Your task to perform on an android device: snooze an email in the gmail app Image 0: 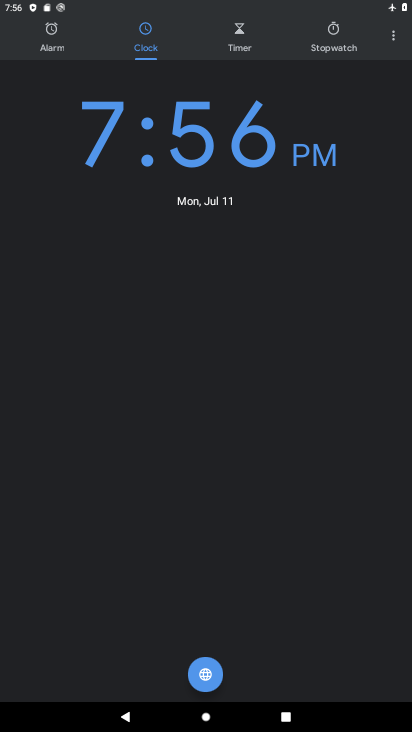
Step 0: press home button
Your task to perform on an android device: snooze an email in the gmail app Image 1: 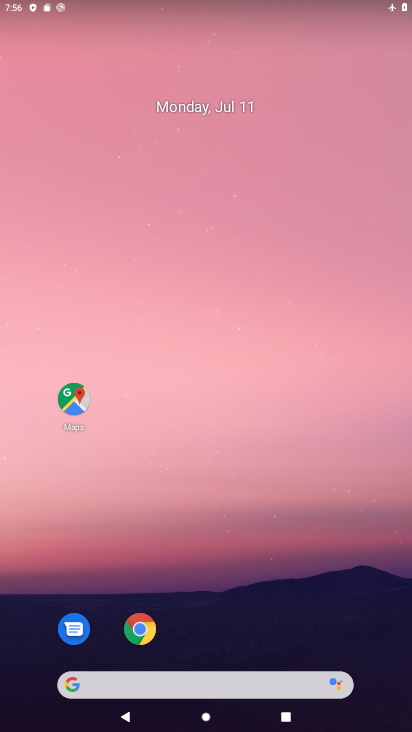
Step 1: drag from (210, 667) to (194, 141)
Your task to perform on an android device: snooze an email in the gmail app Image 2: 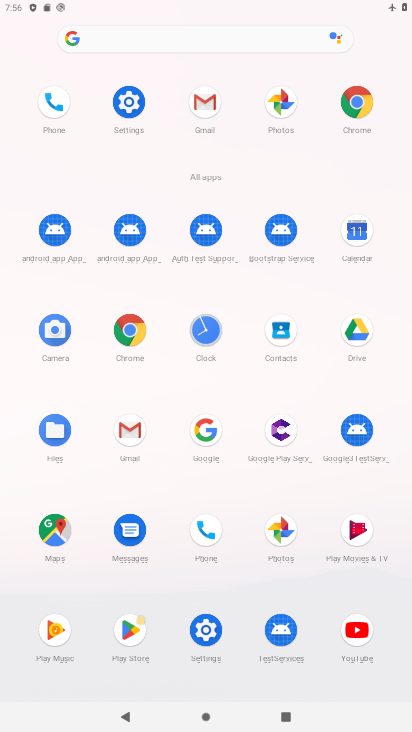
Step 2: click (121, 434)
Your task to perform on an android device: snooze an email in the gmail app Image 3: 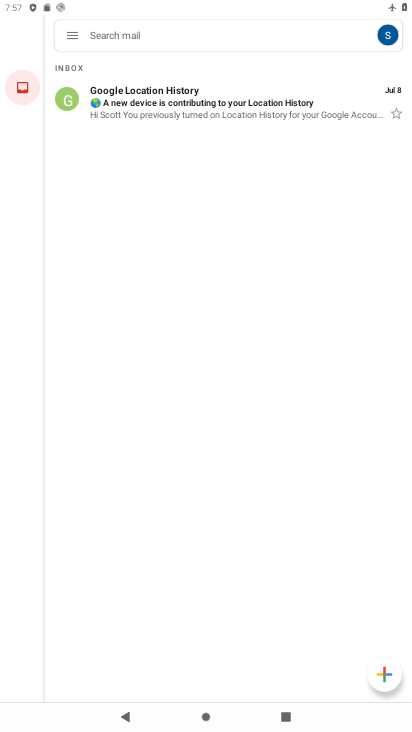
Step 3: click (64, 30)
Your task to perform on an android device: snooze an email in the gmail app Image 4: 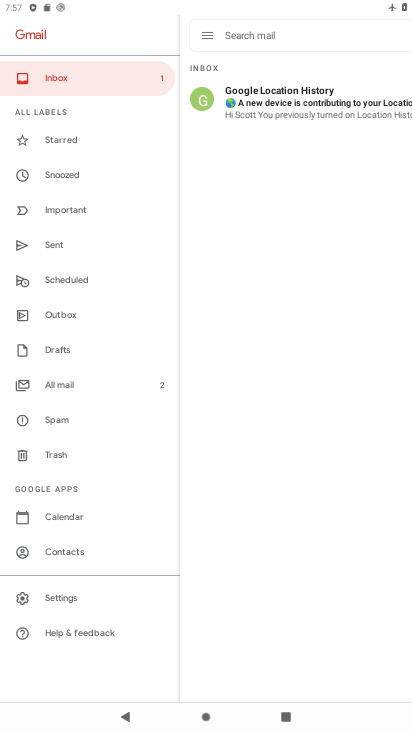
Step 4: click (59, 594)
Your task to perform on an android device: snooze an email in the gmail app Image 5: 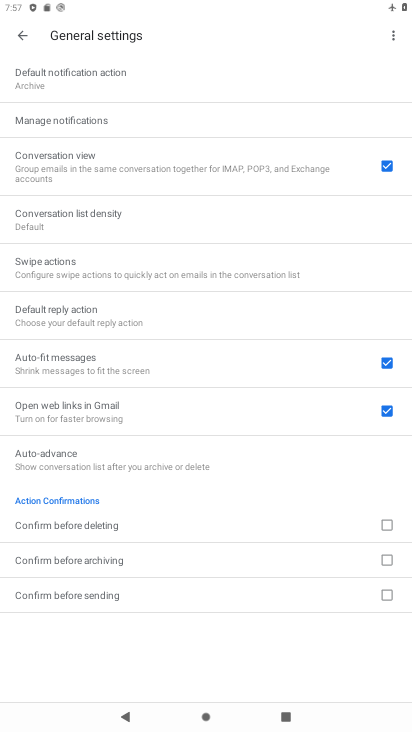
Step 5: click (26, 28)
Your task to perform on an android device: snooze an email in the gmail app Image 6: 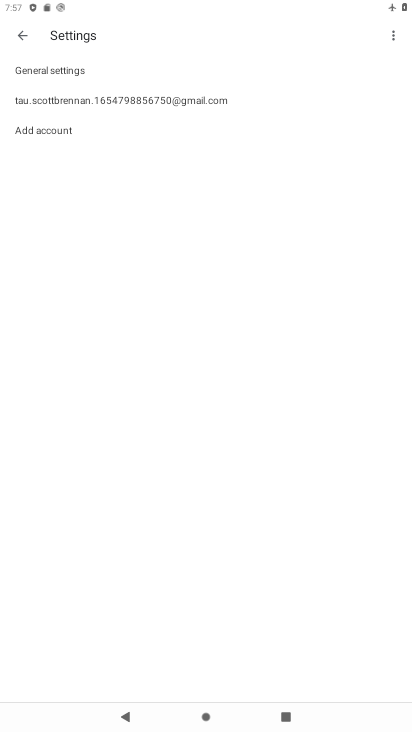
Step 6: click (25, 28)
Your task to perform on an android device: snooze an email in the gmail app Image 7: 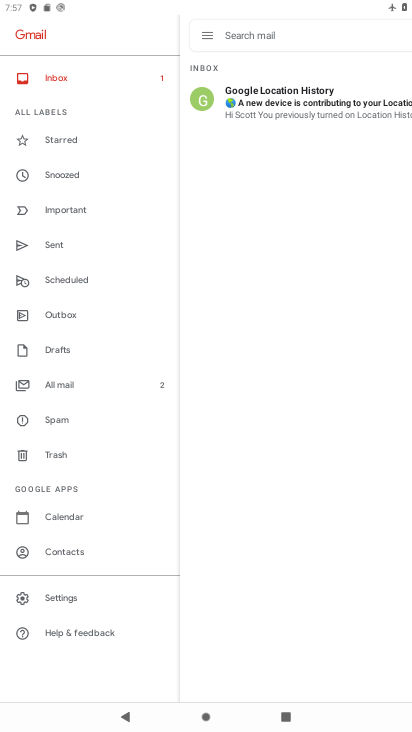
Step 7: click (263, 82)
Your task to perform on an android device: snooze an email in the gmail app Image 8: 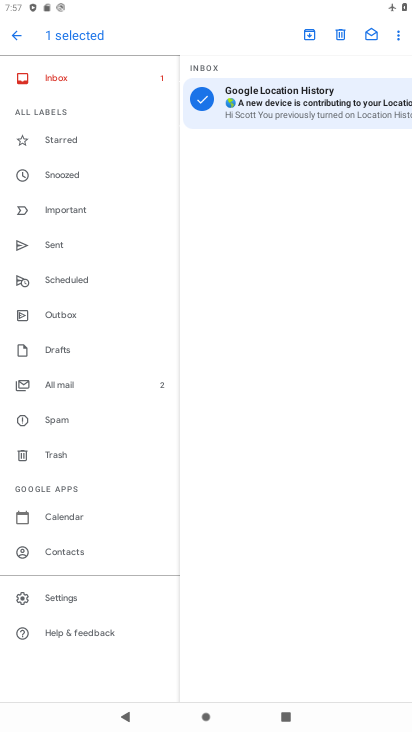
Step 8: click (400, 33)
Your task to perform on an android device: snooze an email in the gmail app Image 9: 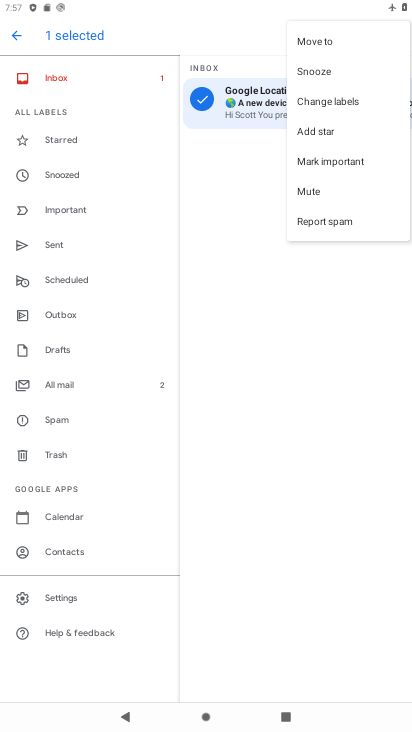
Step 9: click (315, 76)
Your task to perform on an android device: snooze an email in the gmail app Image 10: 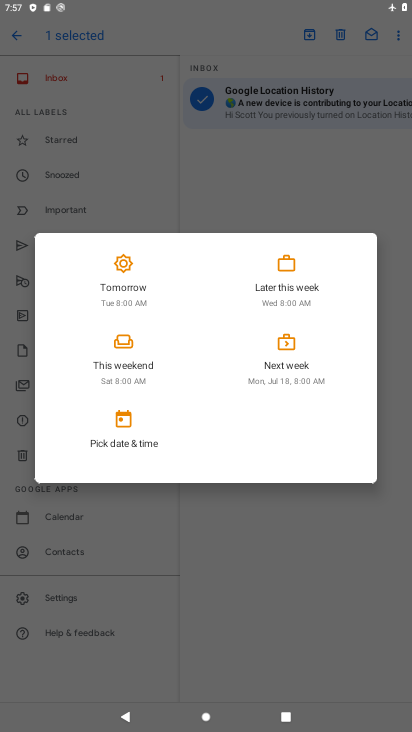
Step 10: click (128, 344)
Your task to perform on an android device: snooze an email in the gmail app Image 11: 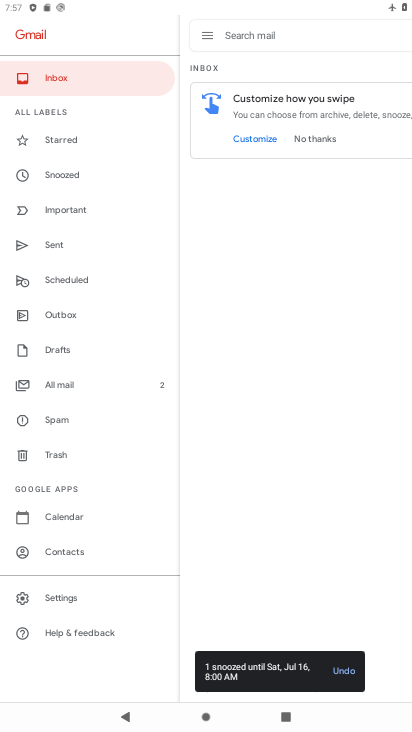
Step 11: task complete